Your task to perform on an android device: add a label to a message in the gmail app Image 0: 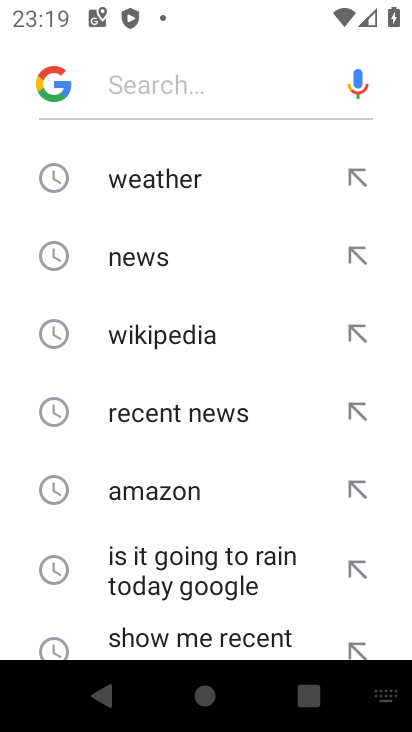
Step 0: press home button
Your task to perform on an android device: add a label to a message in the gmail app Image 1: 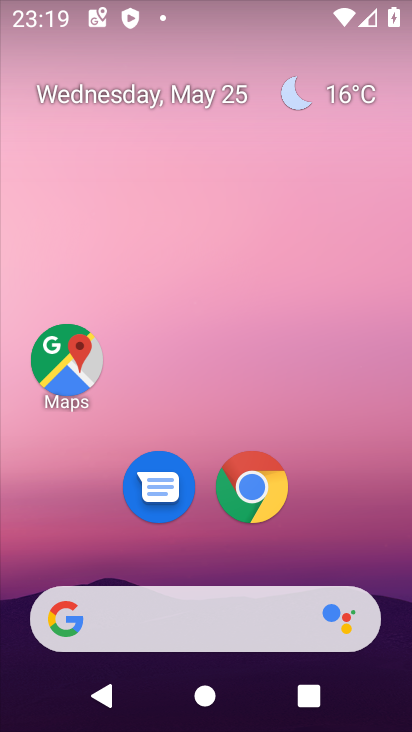
Step 1: drag from (238, 625) to (317, 21)
Your task to perform on an android device: add a label to a message in the gmail app Image 2: 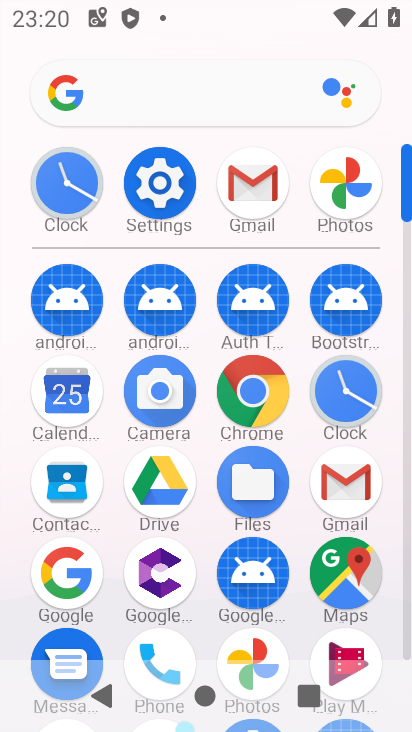
Step 2: click (261, 183)
Your task to perform on an android device: add a label to a message in the gmail app Image 3: 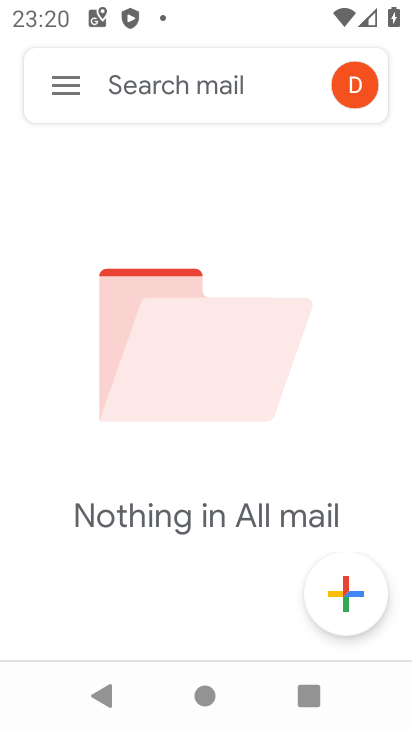
Step 3: task complete